Your task to perform on an android device: Open Google Maps Image 0: 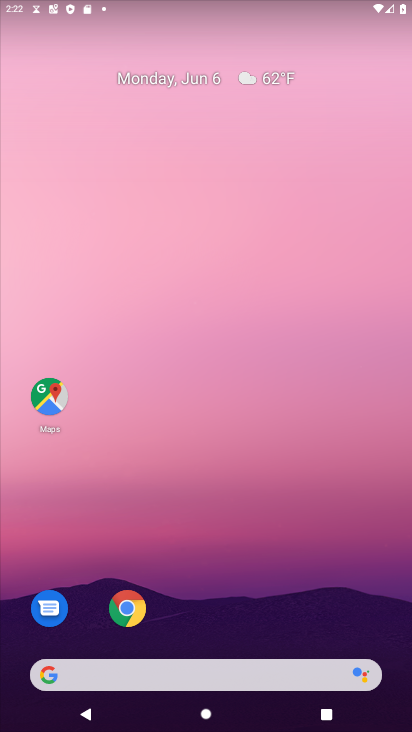
Step 0: drag from (302, 481) to (144, 6)
Your task to perform on an android device: Open Google Maps Image 1: 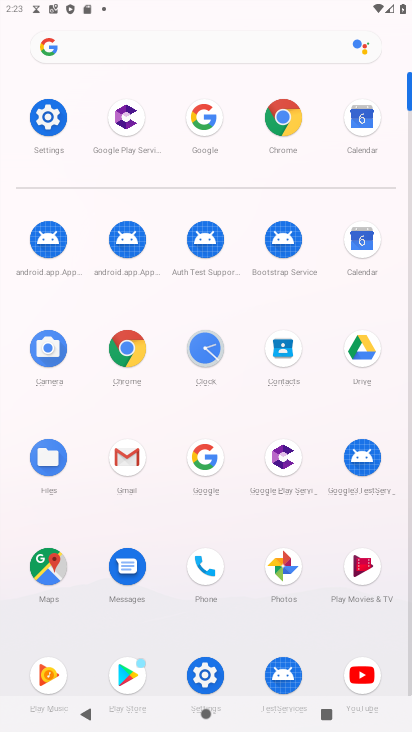
Step 1: click (50, 559)
Your task to perform on an android device: Open Google Maps Image 2: 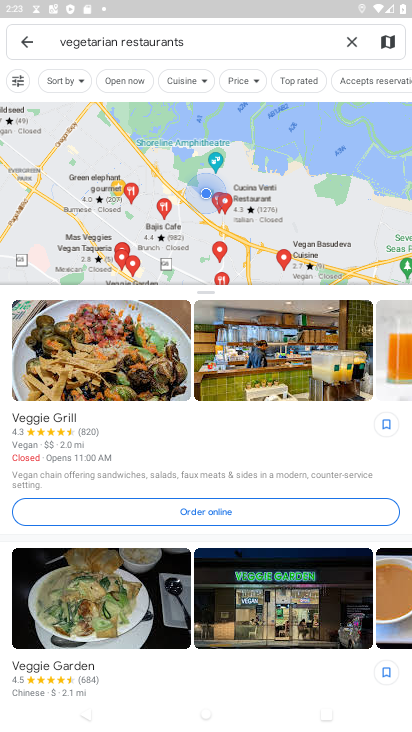
Step 2: task complete